Your task to perform on an android device: open wifi settings Image 0: 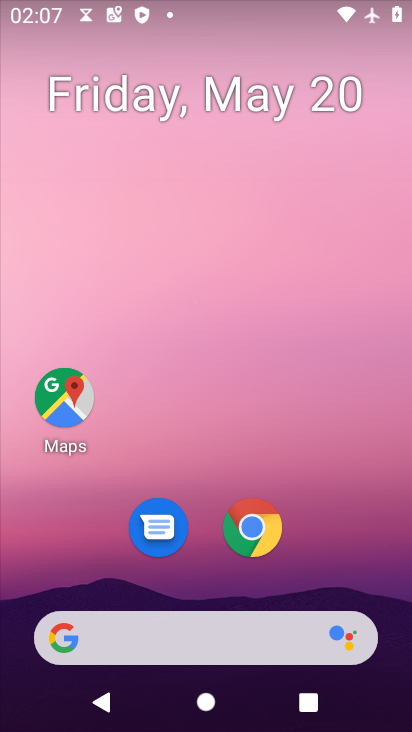
Step 0: press home button
Your task to perform on an android device: open wifi settings Image 1: 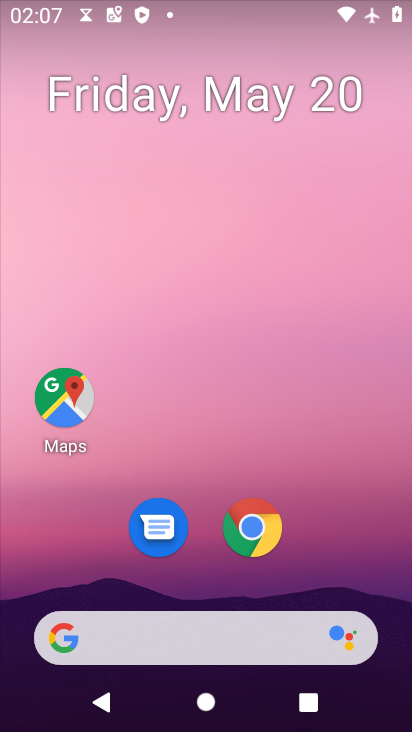
Step 1: drag from (173, 636) to (319, 91)
Your task to perform on an android device: open wifi settings Image 2: 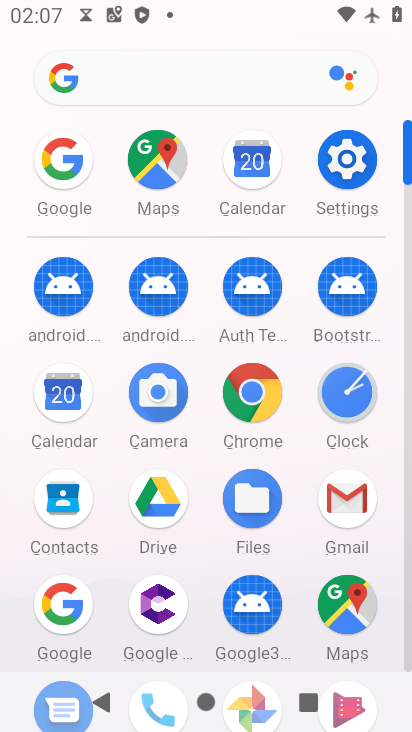
Step 2: click (353, 177)
Your task to perform on an android device: open wifi settings Image 3: 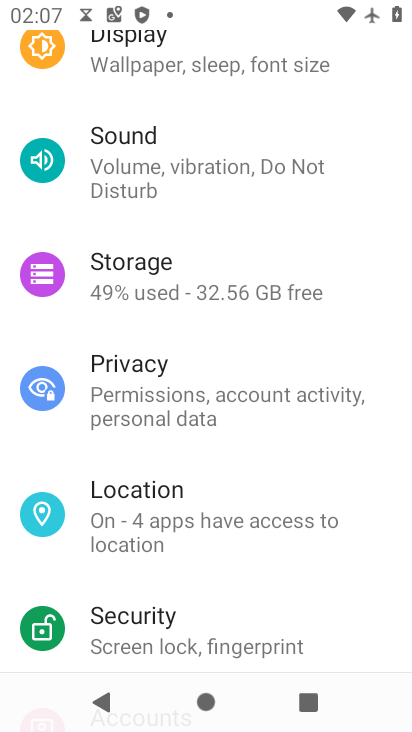
Step 3: drag from (300, 103) to (223, 546)
Your task to perform on an android device: open wifi settings Image 4: 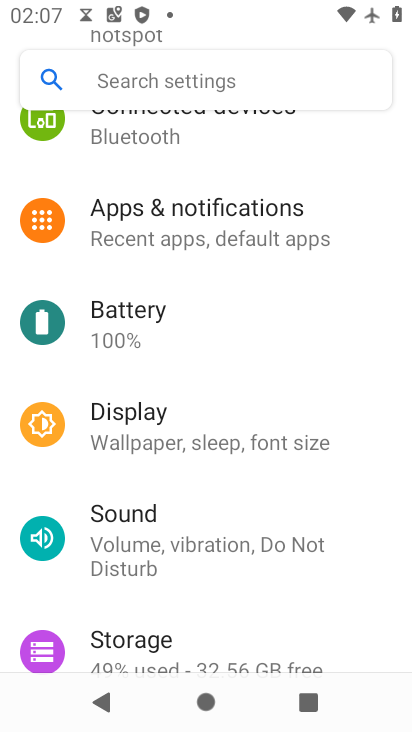
Step 4: drag from (287, 156) to (219, 538)
Your task to perform on an android device: open wifi settings Image 5: 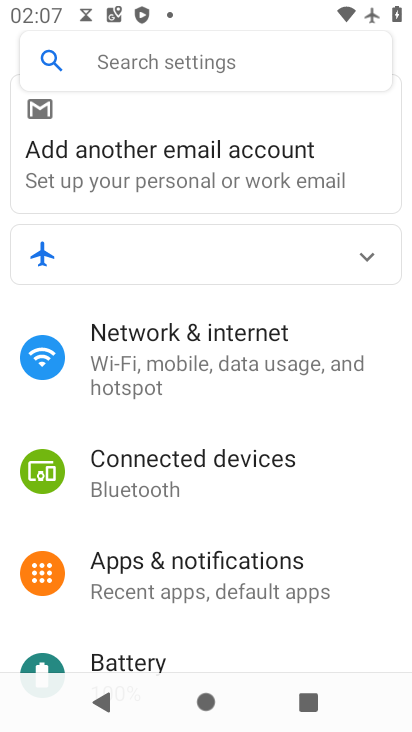
Step 5: click (220, 350)
Your task to perform on an android device: open wifi settings Image 6: 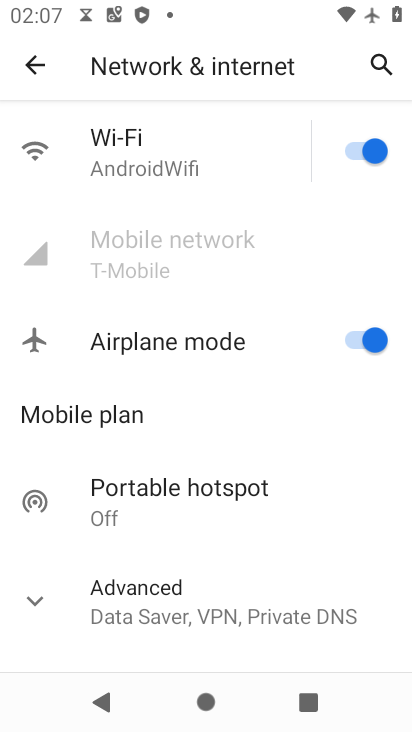
Step 6: click (161, 166)
Your task to perform on an android device: open wifi settings Image 7: 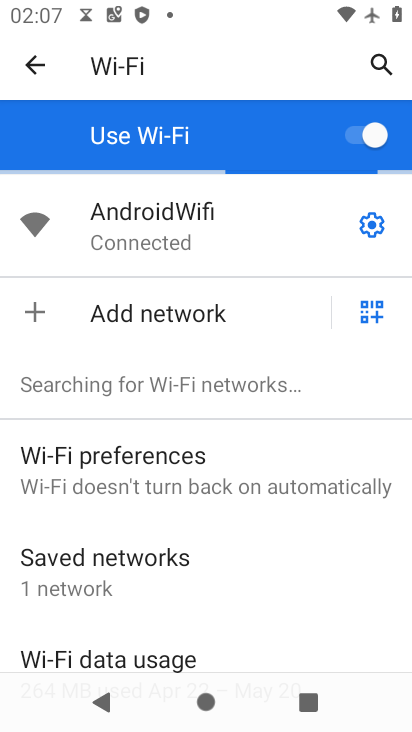
Step 7: task complete